Your task to perform on an android device: Open Google Maps Image 0: 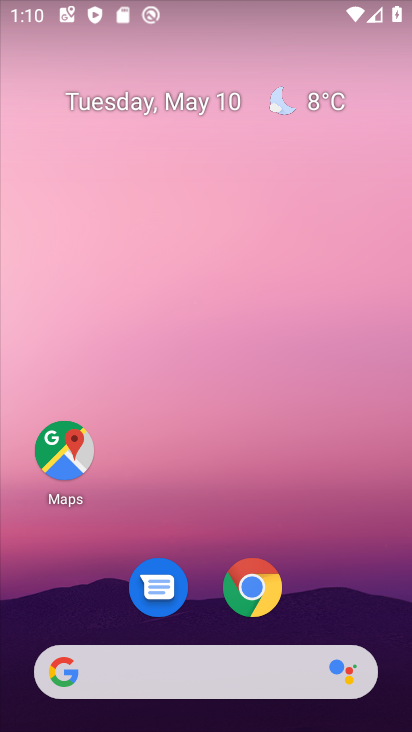
Step 0: click (45, 453)
Your task to perform on an android device: Open Google Maps Image 1: 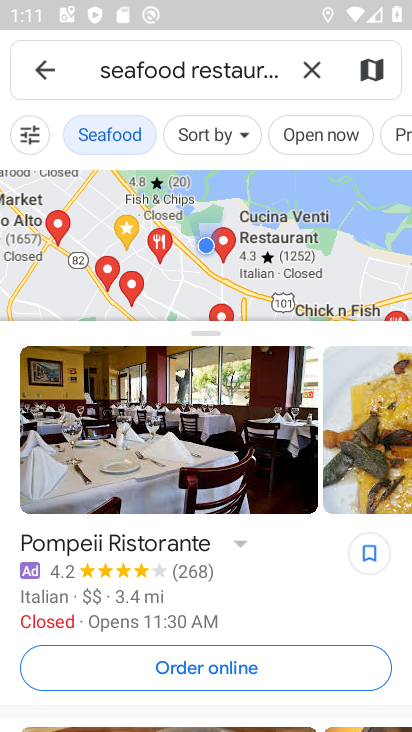
Step 1: task complete